Your task to perform on an android device: check battery use Image 0: 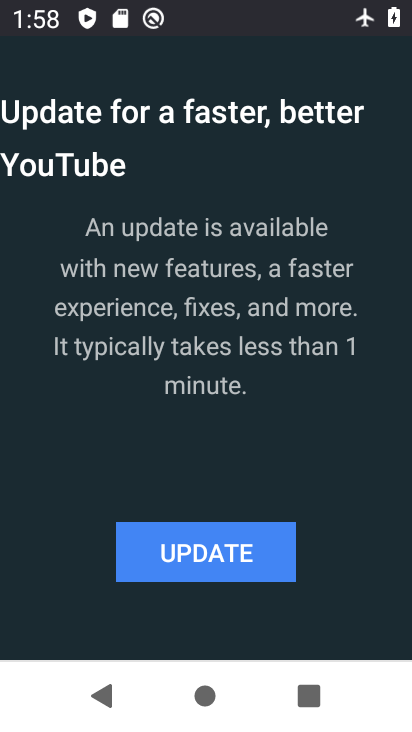
Step 0: click (246, 555)
Your task to perform on an android device: check battery use Image 1: 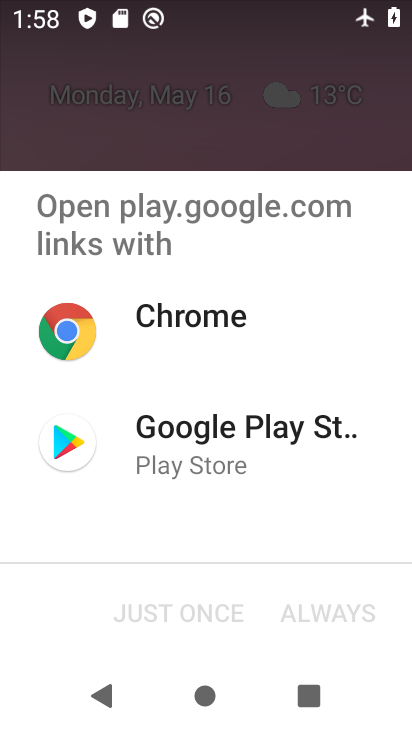
Step 1: press home button
Your task to perform on an android device: check battery use Image 2: 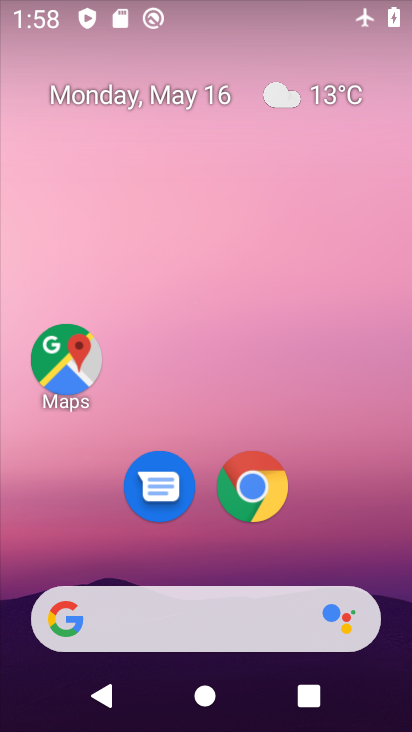
Step 2: drag from (382, 401) to (388, 27)
Your task to perform on an android device: check battery use Image 3: 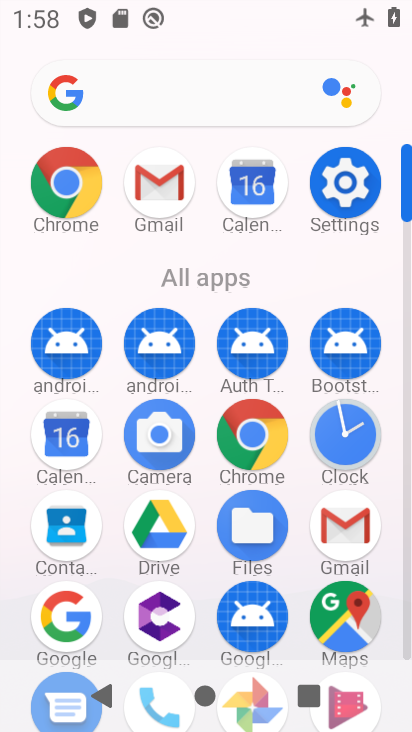
Step 3: click (375, 178)
Your task to perform on an android device: check battery use Image 4: 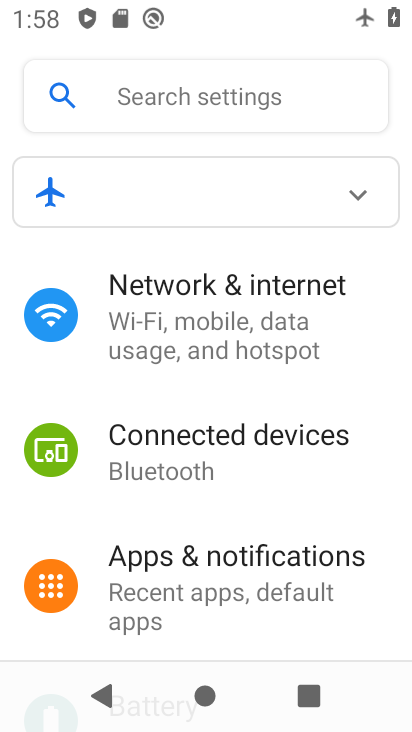
Step 4: drag from (169, 568) to (220, 181)
Your task to perform on an android device: check battery use Image 5: 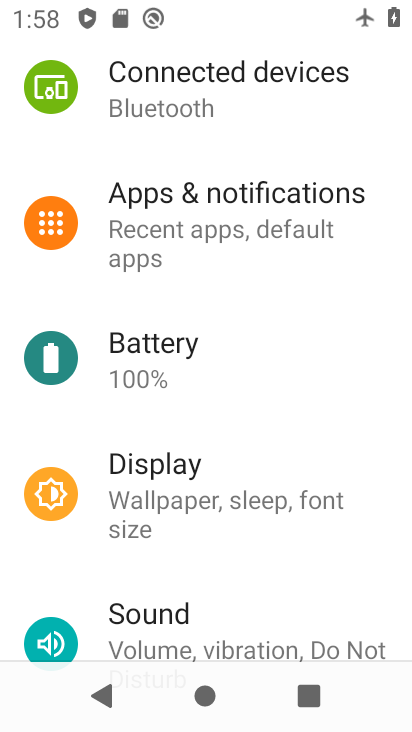
Step 5: click (152, 386)
Your task to perform on an android device: check battery use Image 6: 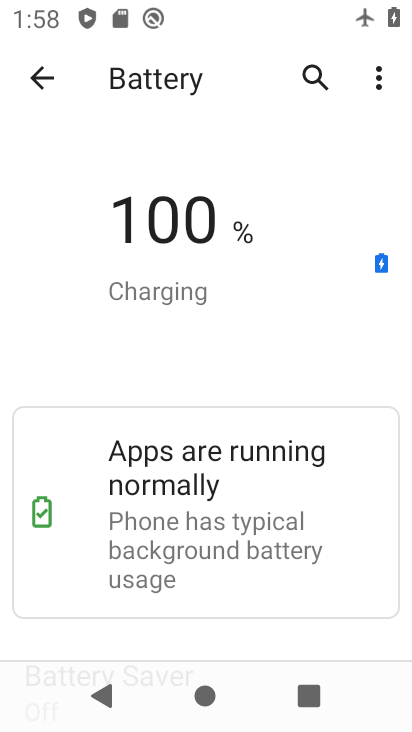
Step 6: task complete